Your task to perform on an android device: Show me popular videos on Youtube Image 0: 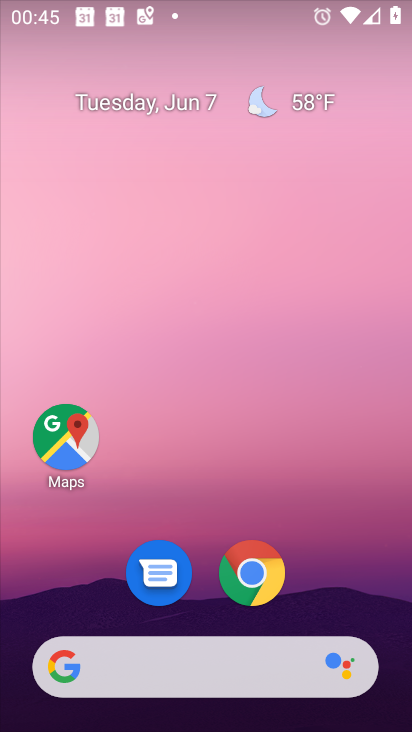
Step 0: press home button
Your task to perform on an android device: Show me popular videos on Youtube Image 1: 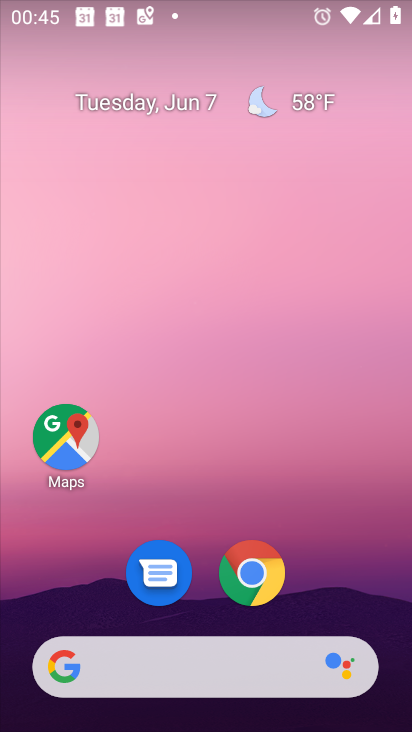
Step 1: drag from (347, 594) to (309, 304)
Your task to perform on an android device: Show me popular videos on Youtube Image 2: 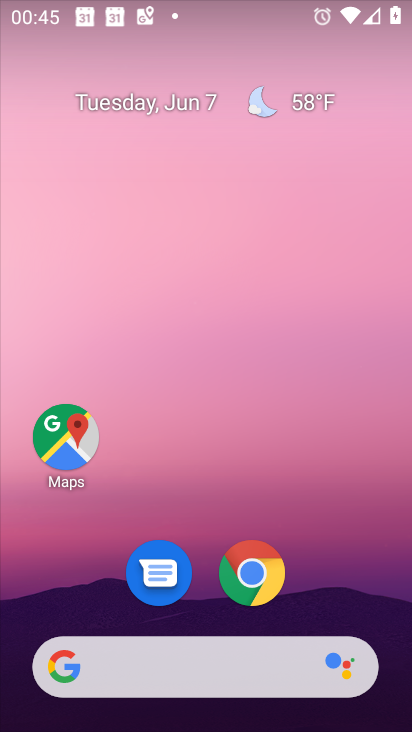
Step 2: drag from (328, 607) to (329, 238)
Your task to perform on an android device: Show me popular videos on Youtube Image 3: 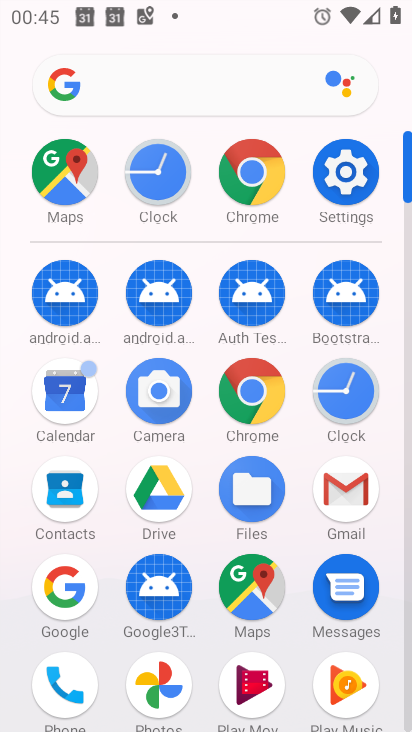
Step 3: click (408, 683)
Your task to perform on an android device: Show me popular videos on Youtube Image 4: 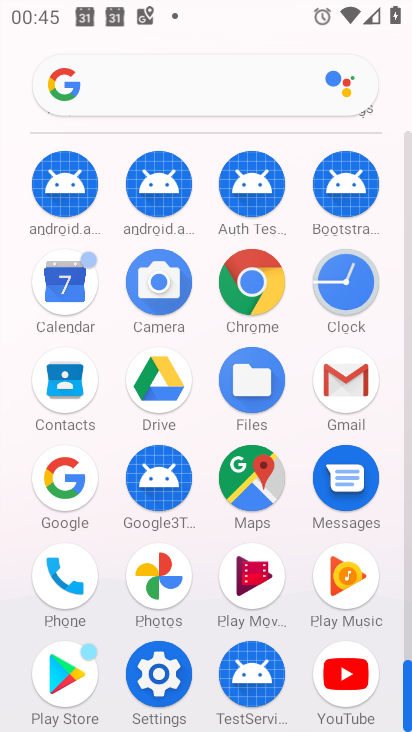
Step 4: click (334, 679)
Your task to perform on an android device: Show me popular videos on Youtube Image 5: 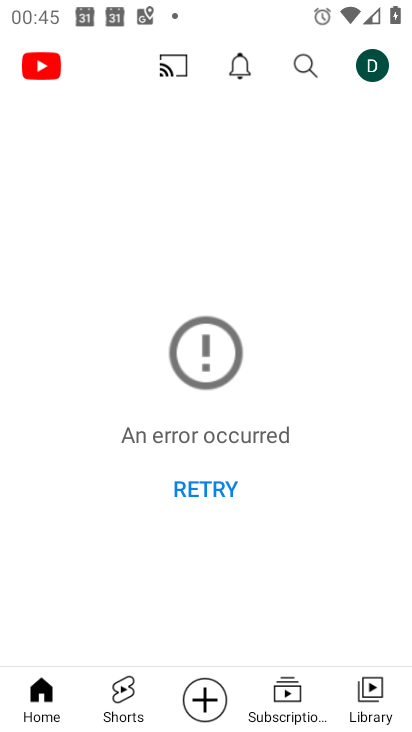
Step 5: click (298, 63)
Your task to perform on an android device: Show me popular videos on Youtube Image 6: 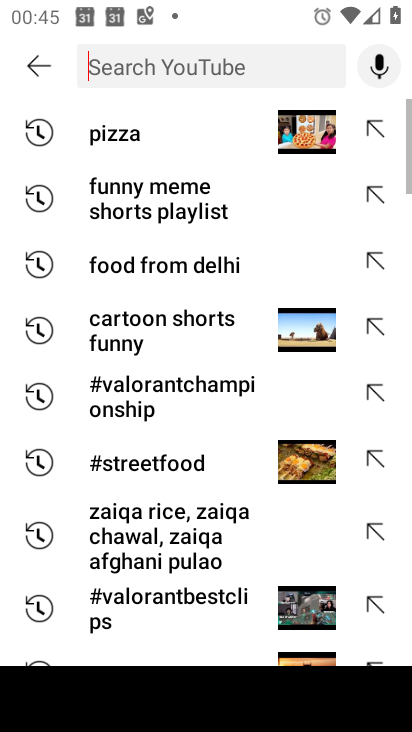
Step 6: click (121, 64)
Your task to perform on an android device: Show me popular videos on Youtube Image 7: 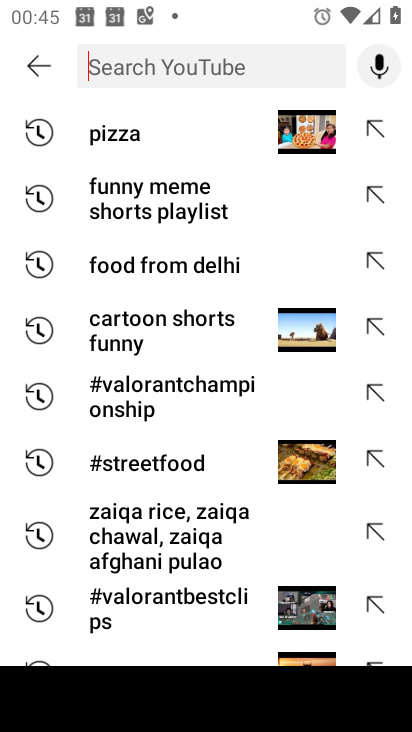
Step 7: type " popular videos on Youtube"
Your task to perform on an android device: Show me popular videos on Youtube Image 8: 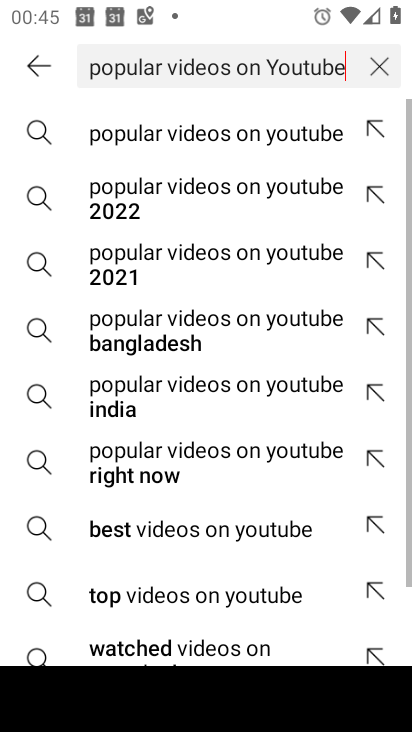
Step 8: click (202, 130)
Your task to perform on an android device: Show me popular videos on Youtube Image 9: 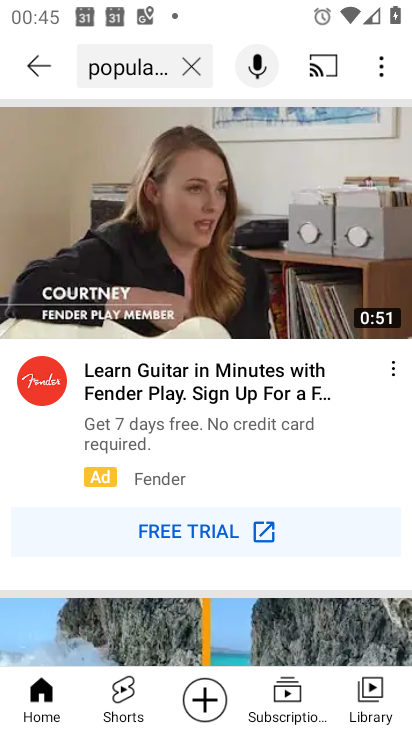
Step 9: task complete